Your task to perform on an android device: add a contact Image 0: 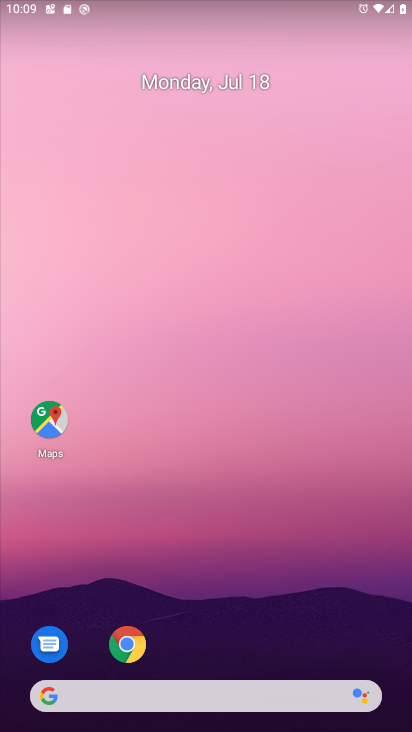
Step 0: drag from (218, 633) to (243, 169)
Your task to perform on an android device: add a contact Image 1: 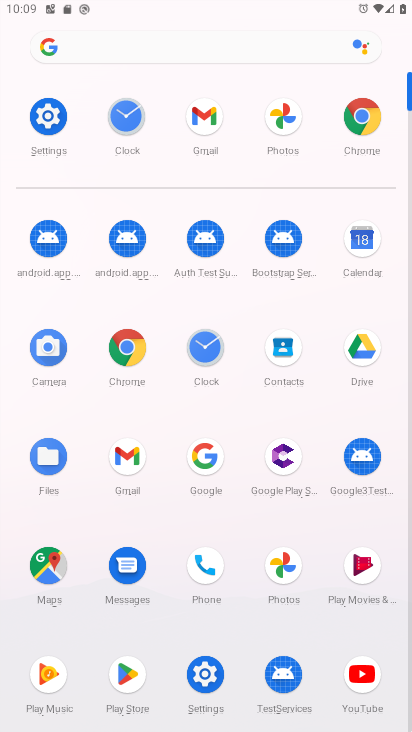
Step 1: task complete